Your task to perform on an android device: delete a single message in the gmail app Image 0: 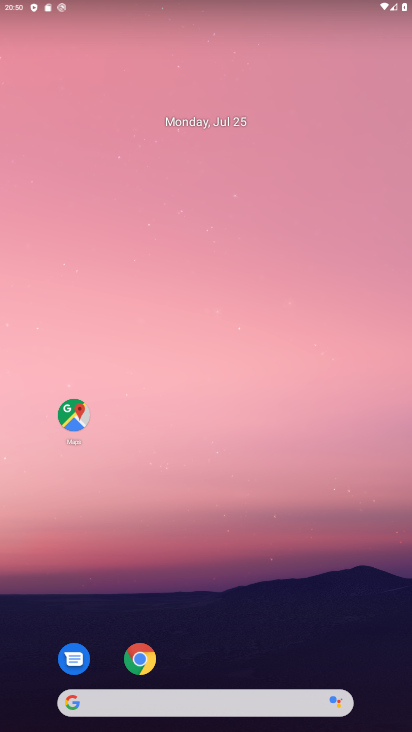
Step 0: drag from (189, 650) to (211, 166)
Your task to perform on an android device: delete a single message in the gmail app Image 1: 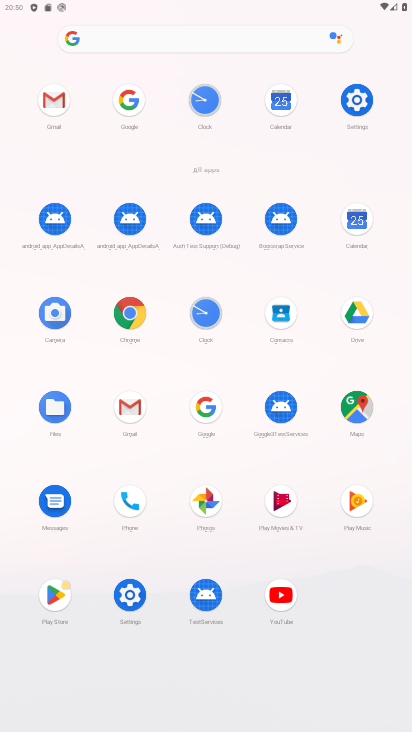
Step 1: click (59, 112)
Your task to perform on an android device: delete a single message in the gmail app Image 2: 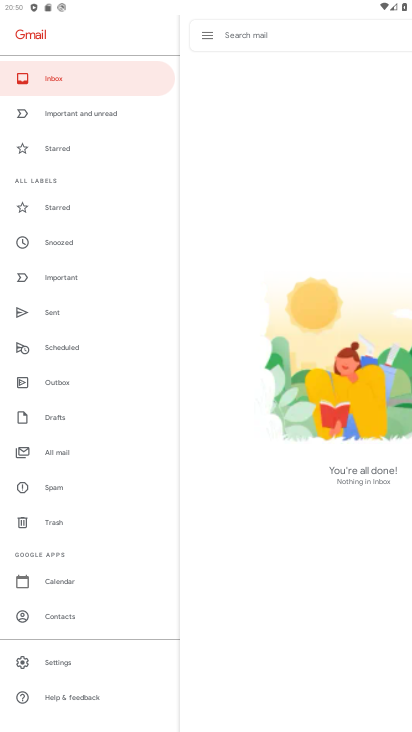
Step 2: click (69, 456)
Your task to perform on an android device: delete a single message in the gmail app Image 3: 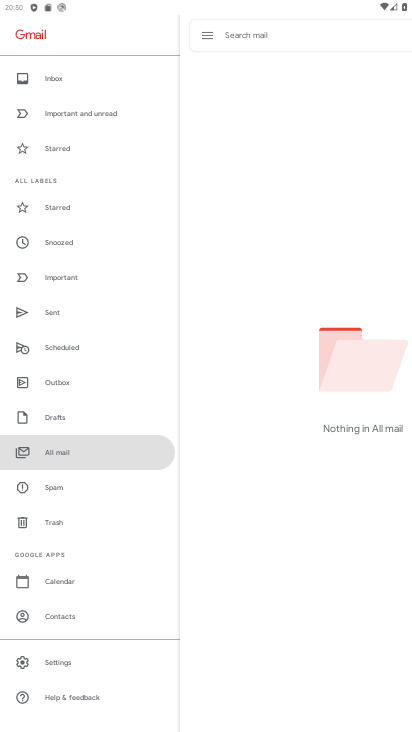
Step 3: task complete